Your task to perform on an android device: Go to eBay Image 0: 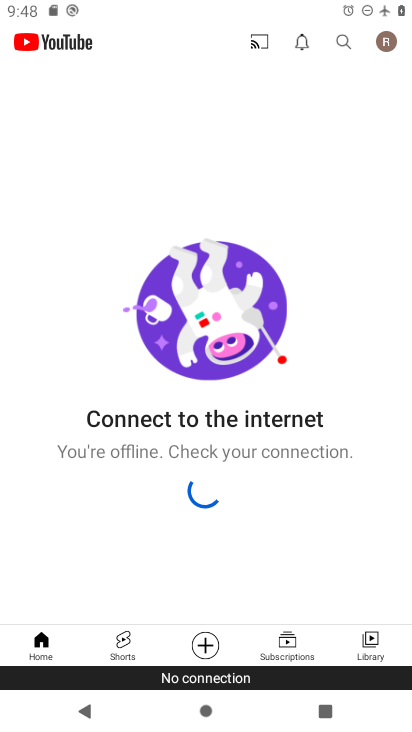
Step 0: press home button
Your task to perform on an android device: Go to eBay Image 1: 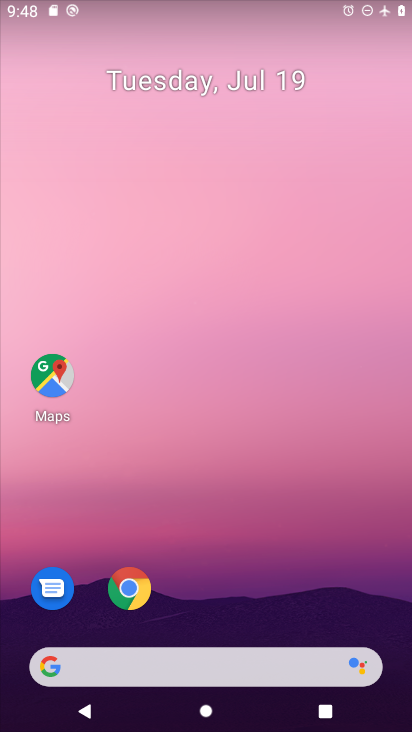
Step 1: drag from (326, 563) to (320, 320)
Your task to perform on an android device: Go to eBay Image 2: 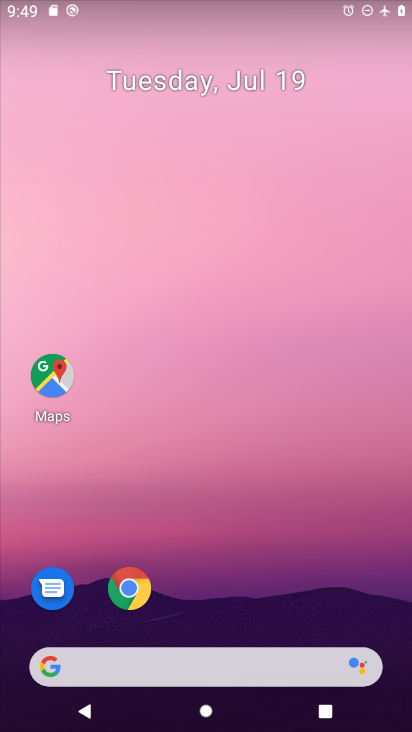
Step 2: drag from (309, 600) to (373, 121)
Your task to perform on an android device: Go to eBay Image 3: 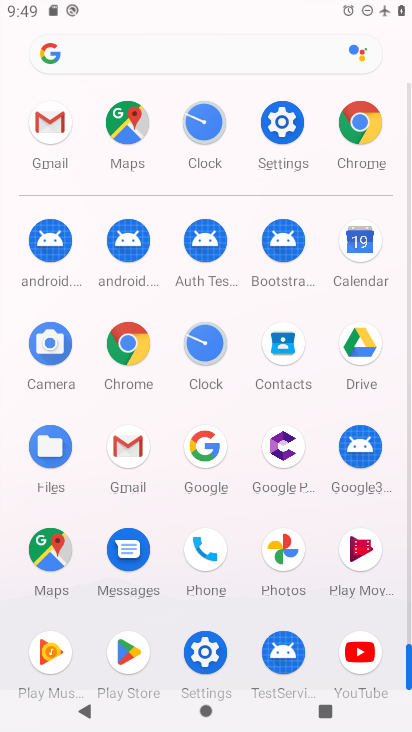
Step 3: click (135, 340)
Your task to perform on an android device: Go to eBay Image 4: 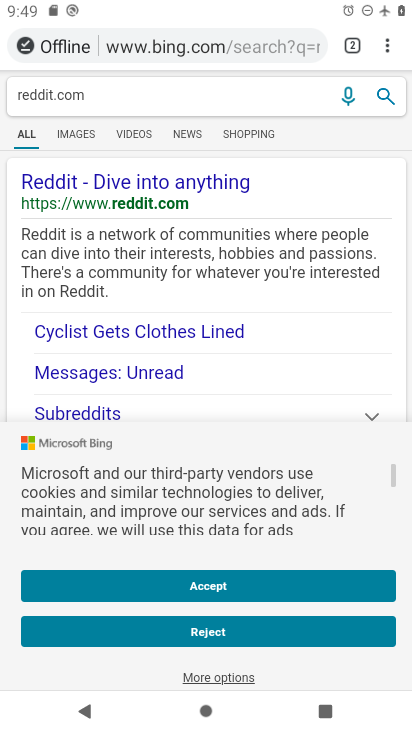
Step 4: click (145, 51)
Your task to perform on an android device: Go to eBay Image 5: 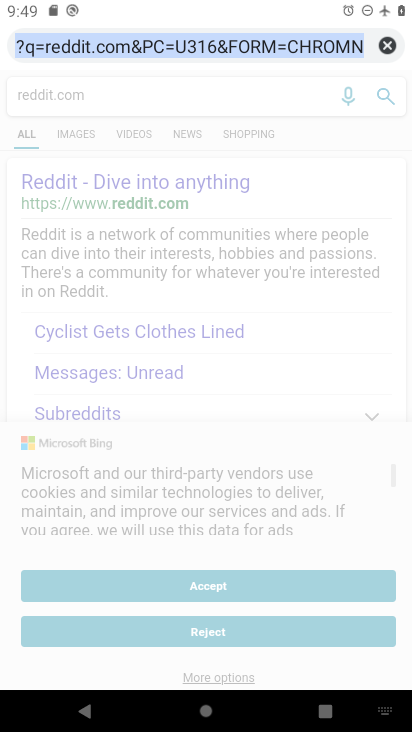
Step 5: type "eaby"
Your task to perform on an android device: Go to eBay Image 6: 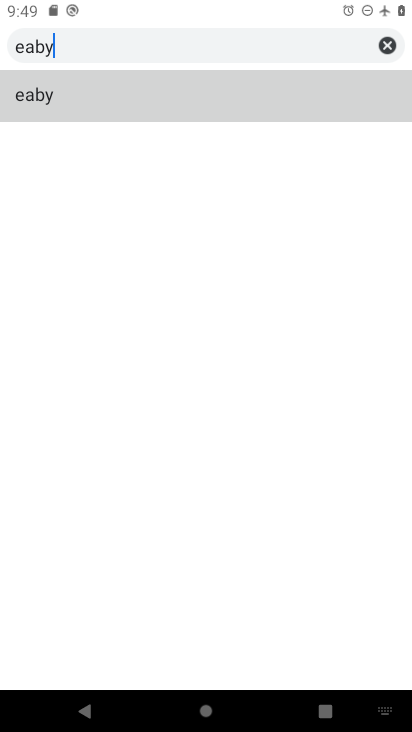
Step 6: click (208, 93)
Your task to perform on an android device: Go to eBay Image 7: 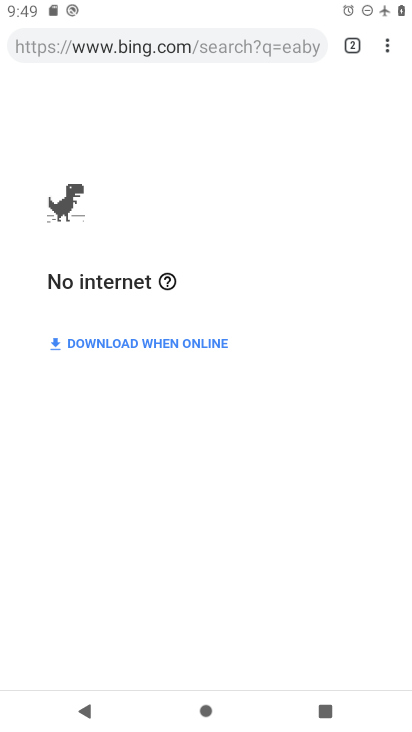
Step 7: task complete